Your task to perform on an android device: Open the phone app and click the voicemail tab. Image 0: 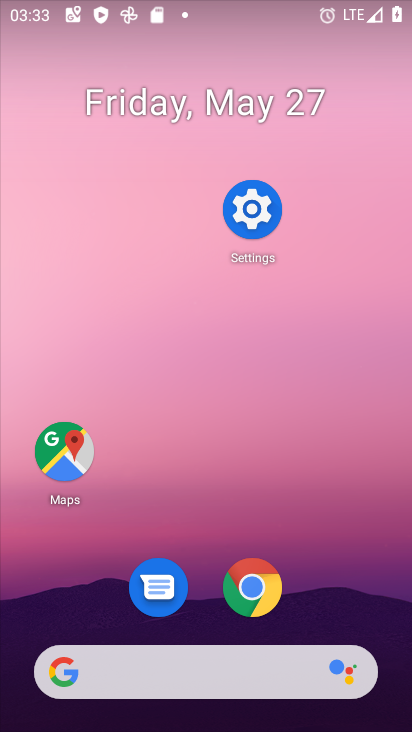
Step 0: drag from (364, 598) to (363, 226)
Your task to perform on an android device: Open the phone app and click the voicemail tab. Image 1: 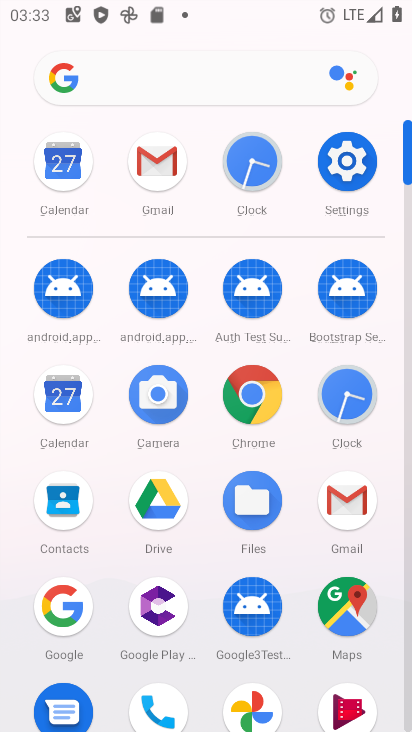
Step 1: click (159, 707)
Your task to perform on an android device: Open the phone app and click the voicemail tab. Image 2: 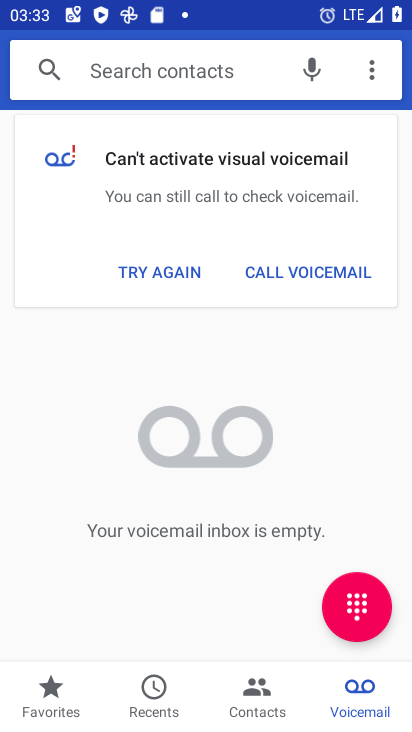
Step 2: click (360, 683)
Your task to perform on an android device: Open the phone app and click the voicemail tab. Image 3: 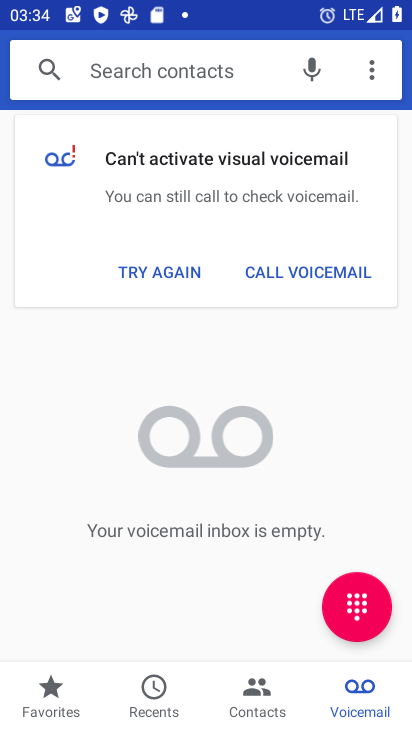
Step 3: task complete